Your task to perform on an android device: turn off priority inbox in the gmail app Image 0: 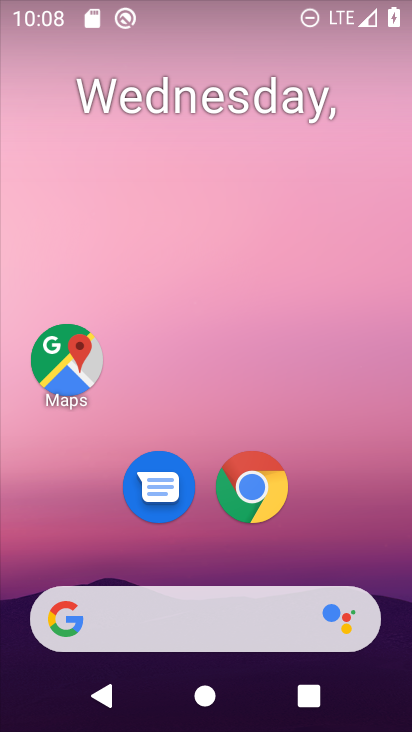
Step 0: drag from (345, 516) to (243, 135)
Your task to perform on an android device: turn off priority inbox in the gmail app Image 1: 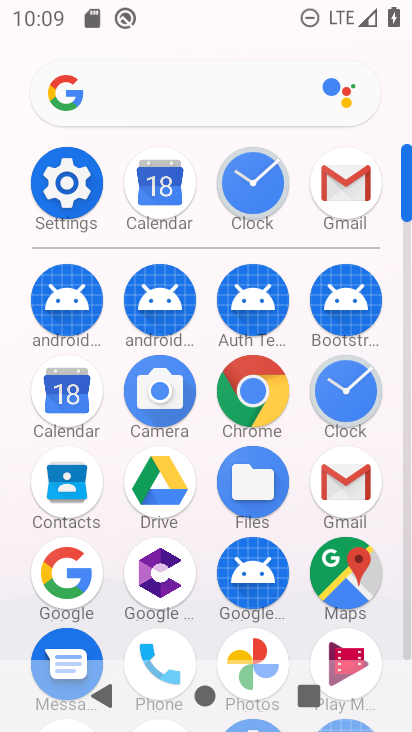
Step 1: click (339, 488)
Your task to perform on an android device: turn off priority inbox in the gmail app Image 2: 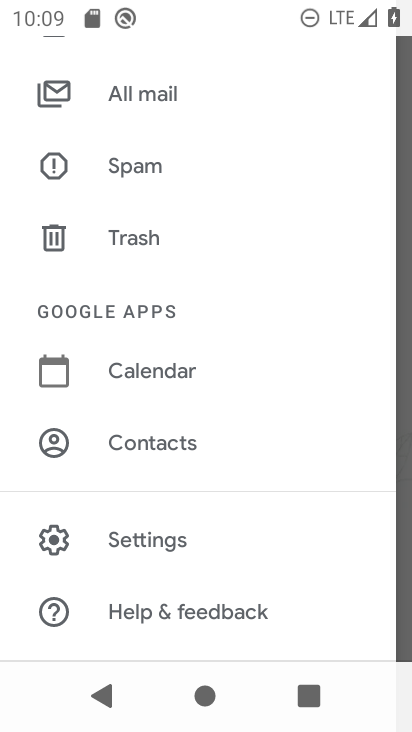
Step 2: click (153, 539)
Your task to perform on an android device: turn off priority inbox in the gmail app Image 3: 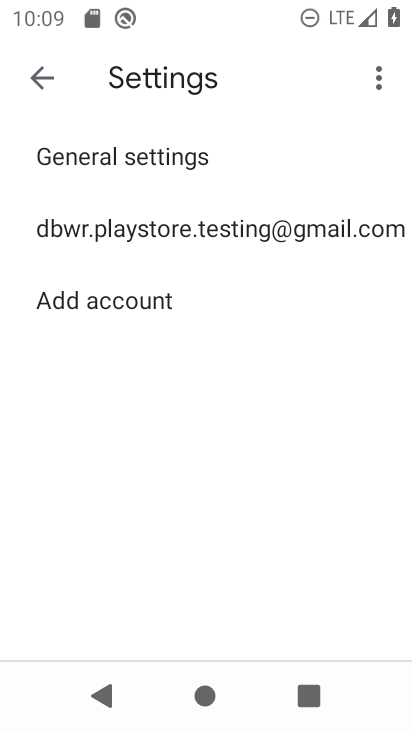
Step 3: click (128, 230)
Your task to perform on an android device: turn off priority inbox in the gmail app Image 4: 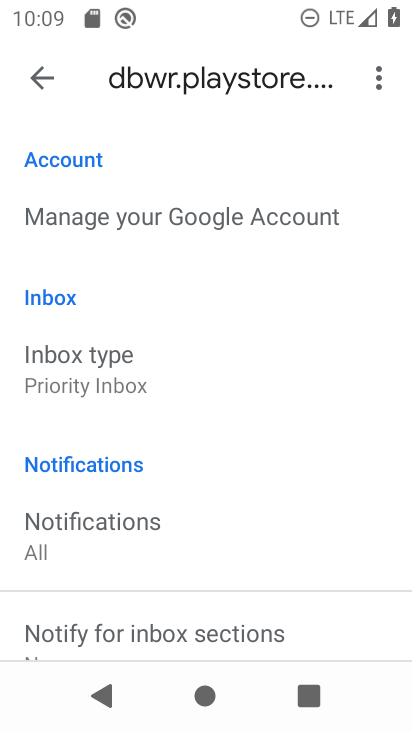
Step 4: click (83, 353)
Your task to perform on an android device: turn off priority inbox in the gmail app Image 5: 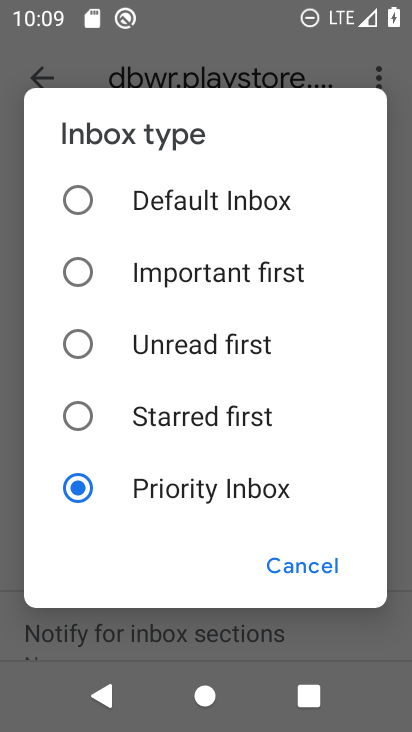
Step 5: click (72, 201)
Your task to perform on an android device: turn off priority inbox in the gmail app Image 6: 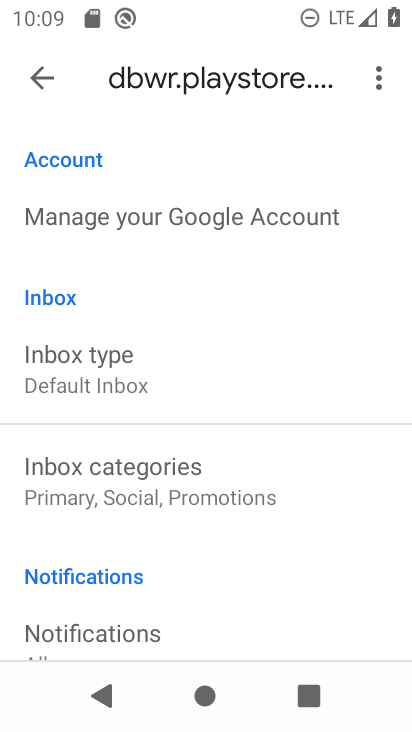
Step 6: task complete